Your task to perform on an android device: Open my contact list Image 0: 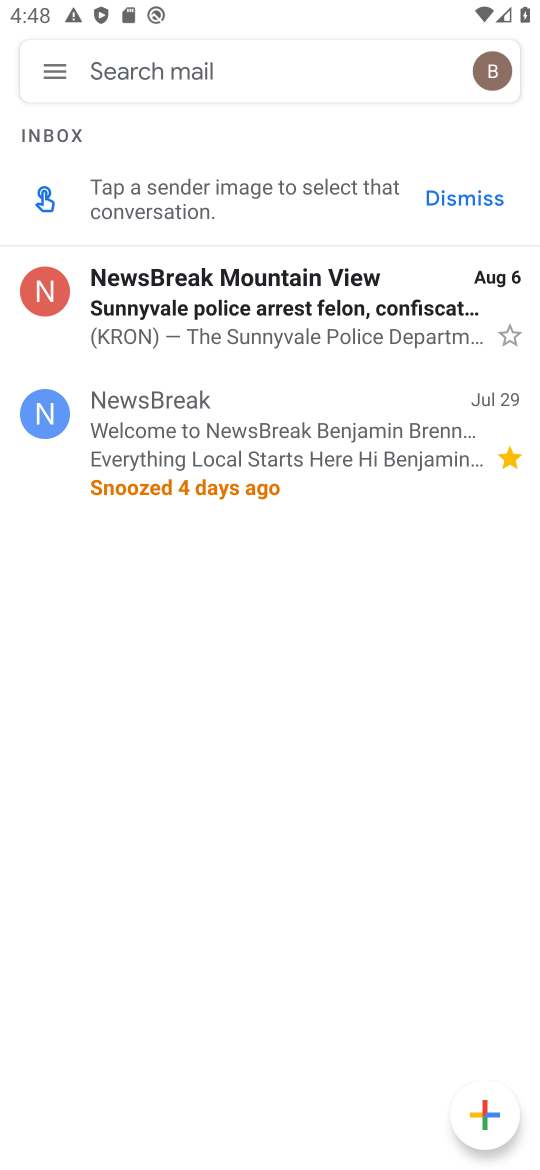
Step 0: press home button
Your task to perform on an android device: Open my contact list Image 1: 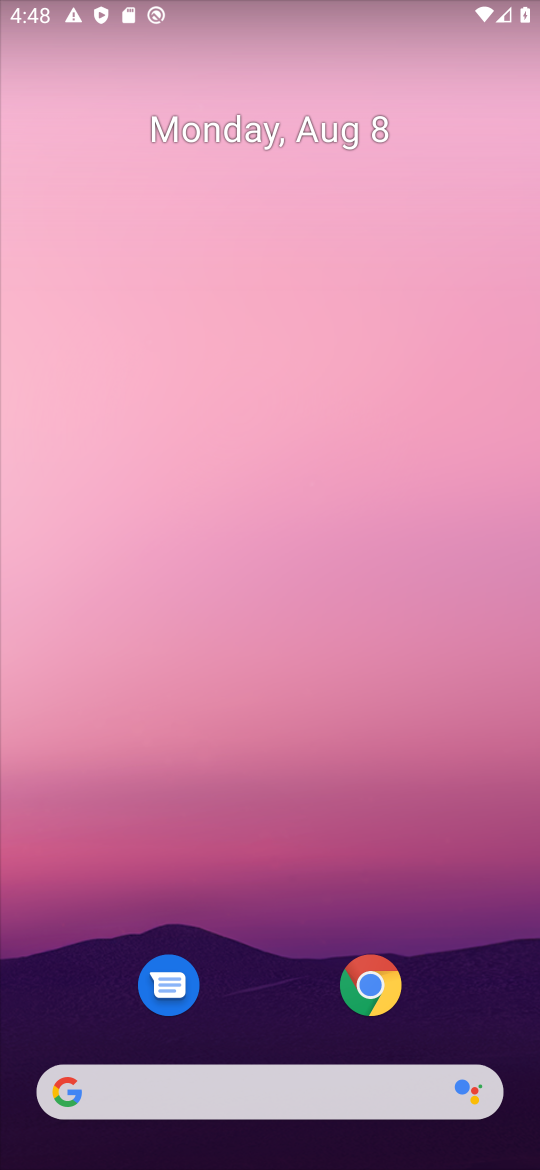
Step 1: drag from (329, 809) to (499, 95)
Your task to perform on an android device: Open my contact list Image 2: 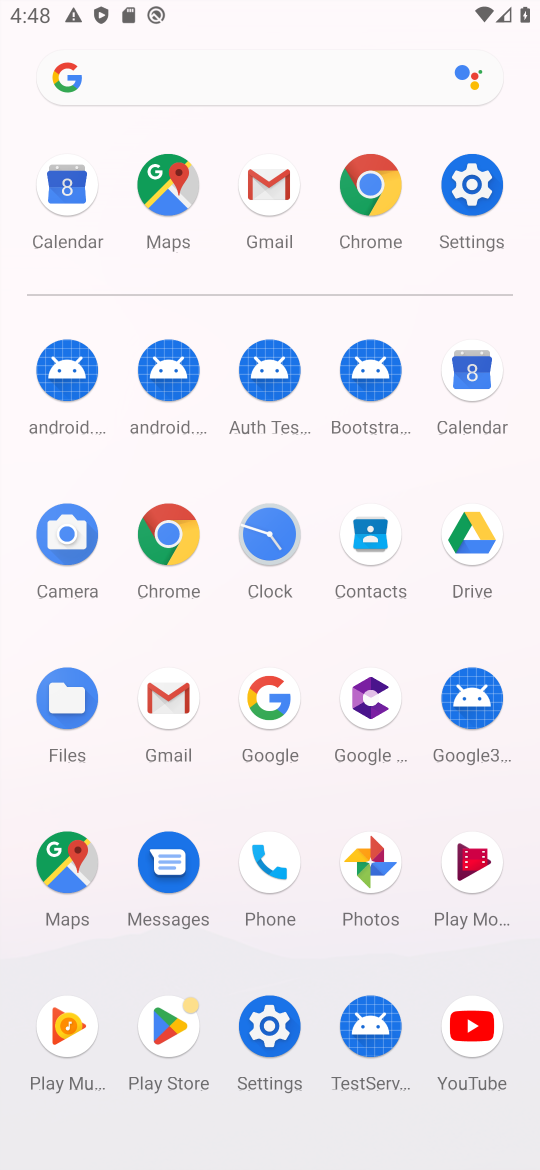
Step 2: click (363, 522)
Your task to perform on an android device: Open my contact list Image 3: 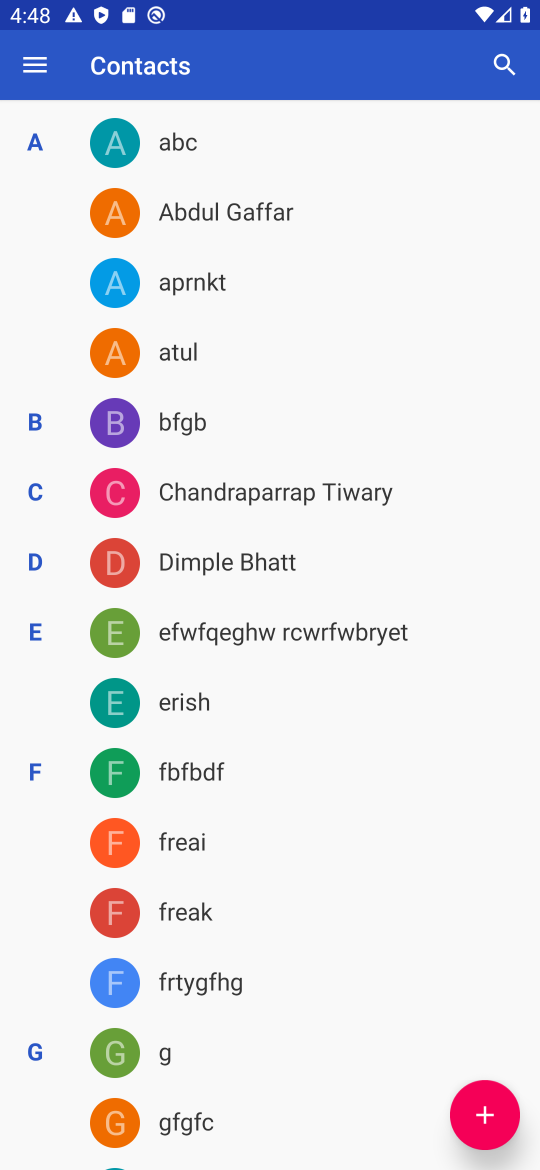
Step 3: task complete